Your task to perform on an android device: change the clock display to digital Image 0: 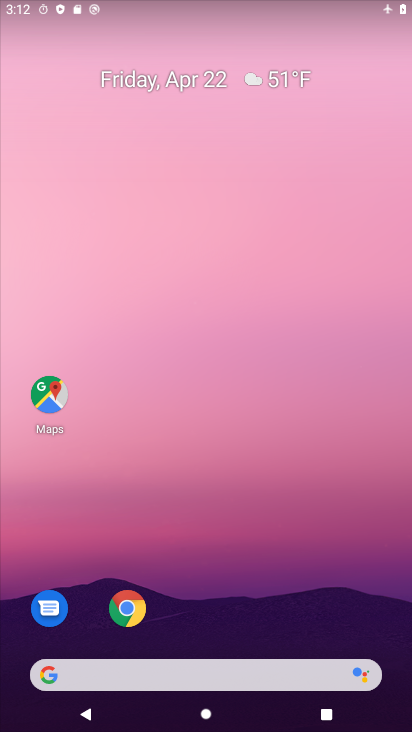
Step 0: drag from (239, 509) to (252, 30)
Your task to perform on an android device: change the clock display to digital Image 1: 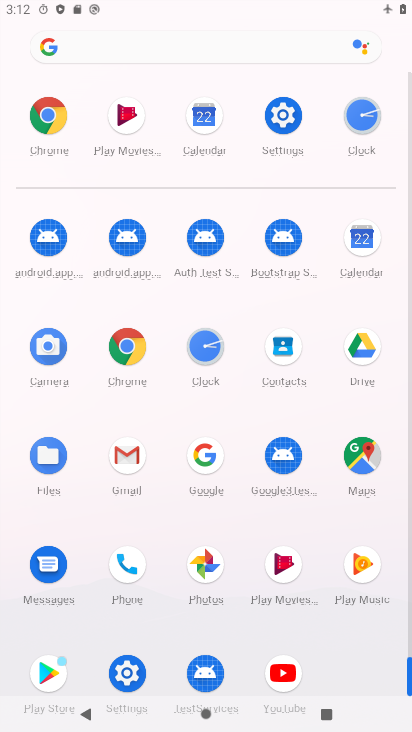
Step 1: click (363, 114)
Your task to perform on an android device: change the clock display to digital Image 2: 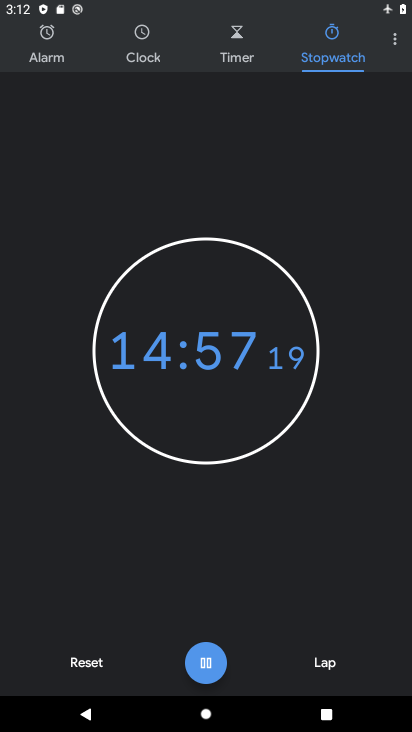
Step 2: click (393, 36)
Your task to perform on an android device: change the clock display to digital Image 3: 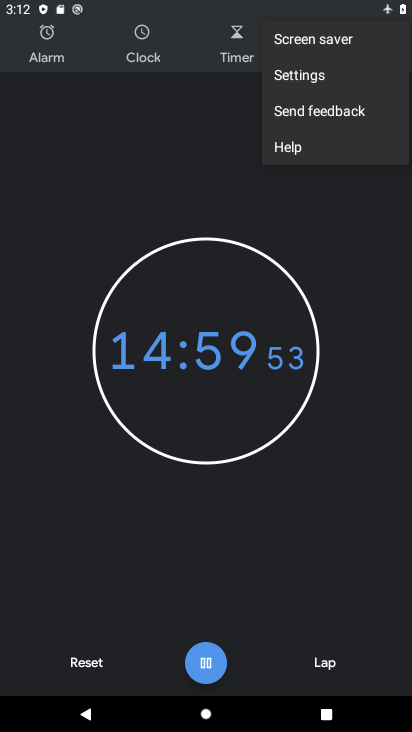
Step 3: click (317, 74)
Your task to perform on an android device: change the clock display to digital Image 4: 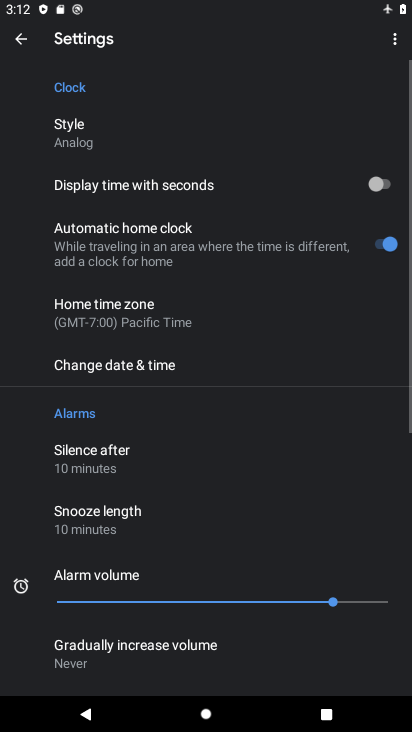
Step 4: click (93, 134)
Your task to perform on an android device: change the clock display to digital Image 5: 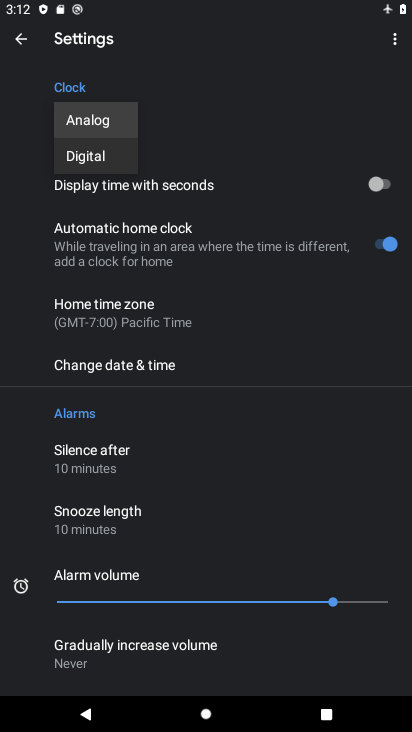
Step 5: click (104, 152)
Your task to perform on an android device: change the clock display to digital Image 6: 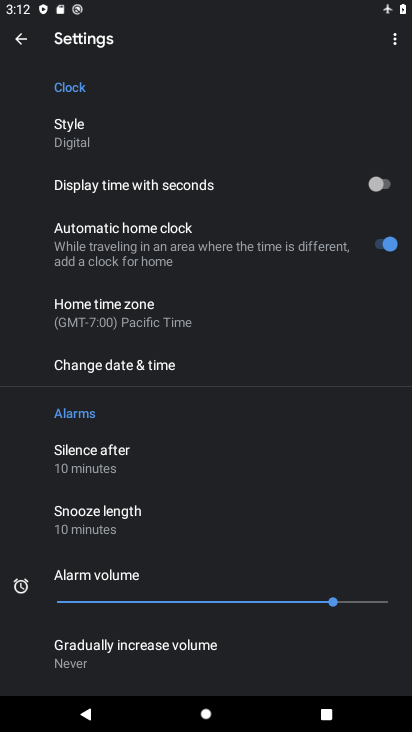
Step 6: task complete